Your task to perform on an android device: Go to network settings Image 0: 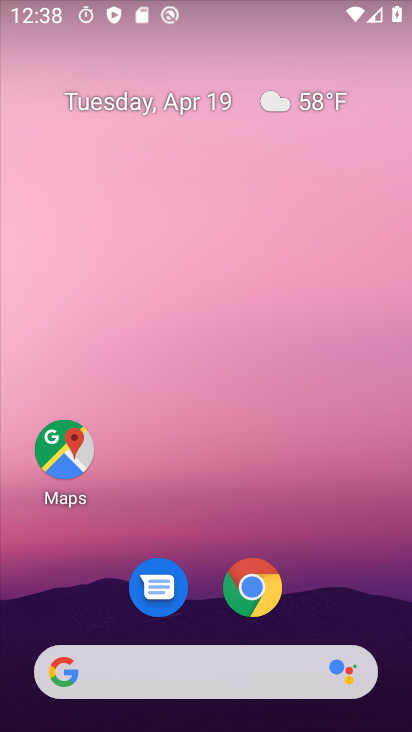
Step 0: drag from (366, 602) to (368, 193)
Your task to perform on an android device: Go to network settings Image 1: 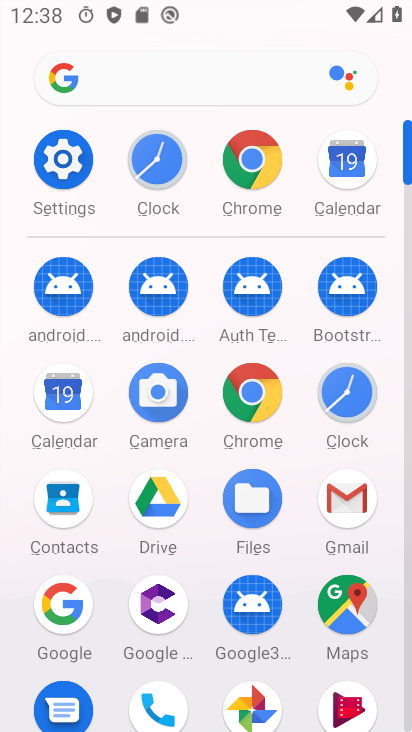
Step 1: click (62, 170)
Your task to perform on an android device: Go to network settings Image 2: 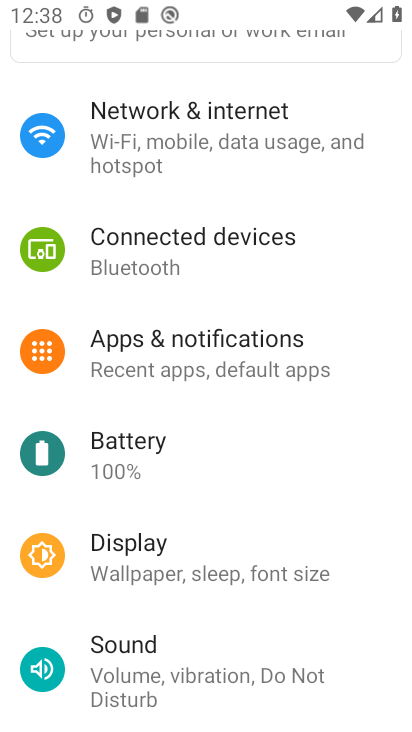
Step 2: click (171, 115)
Your task to perform on an android device: Go to network settings Image 3: 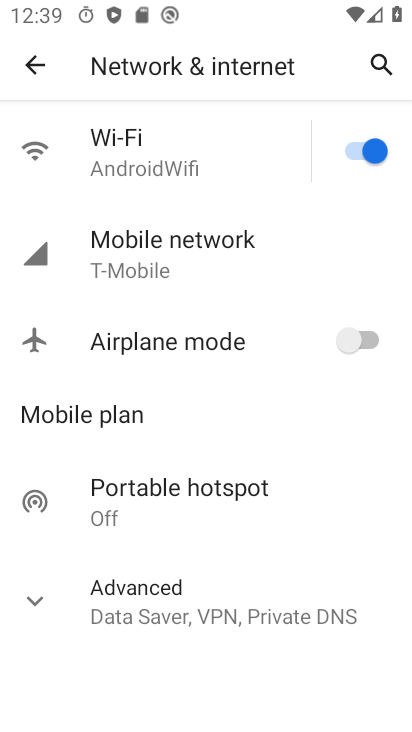
Step 3: task complete